Your task to perform on an android device: Open maps Image 0: 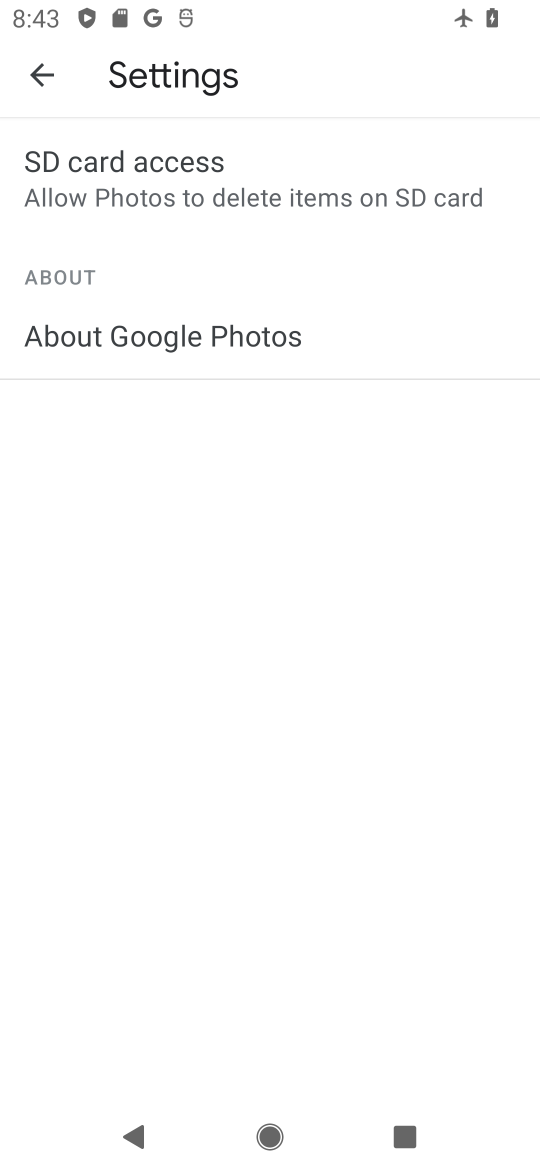
Step 0: press home button
Your task to perform on an android device: Open maps Image 1: 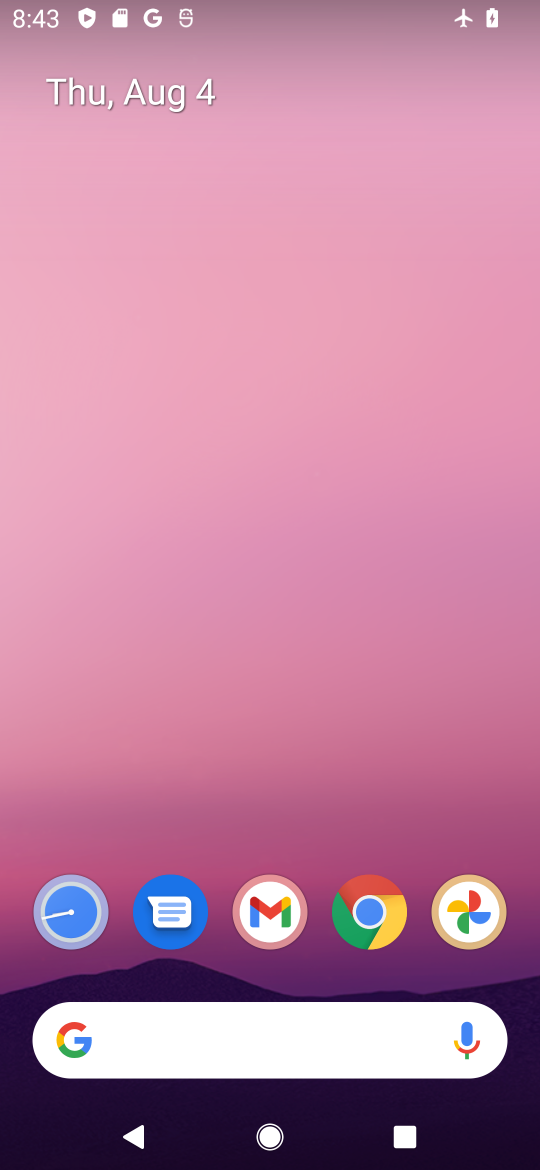
Step 1: drag from (415, 853) to (288, 86)
Your task to perform on an android device: Open maps Image 2: 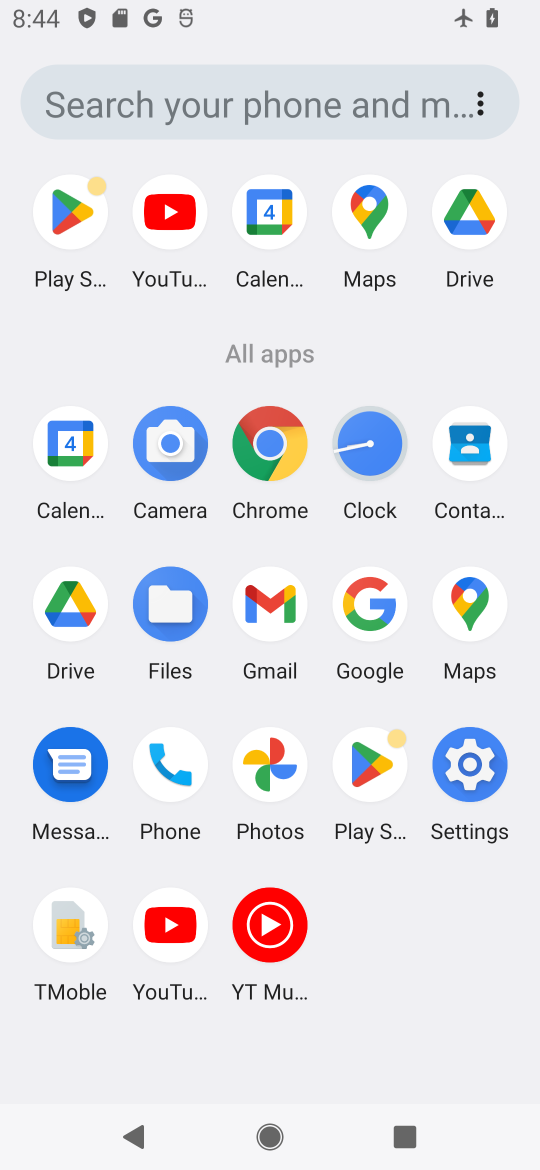
Step 2: click (369, 223)
Your task to perform on an android device: Open maps Image 3: 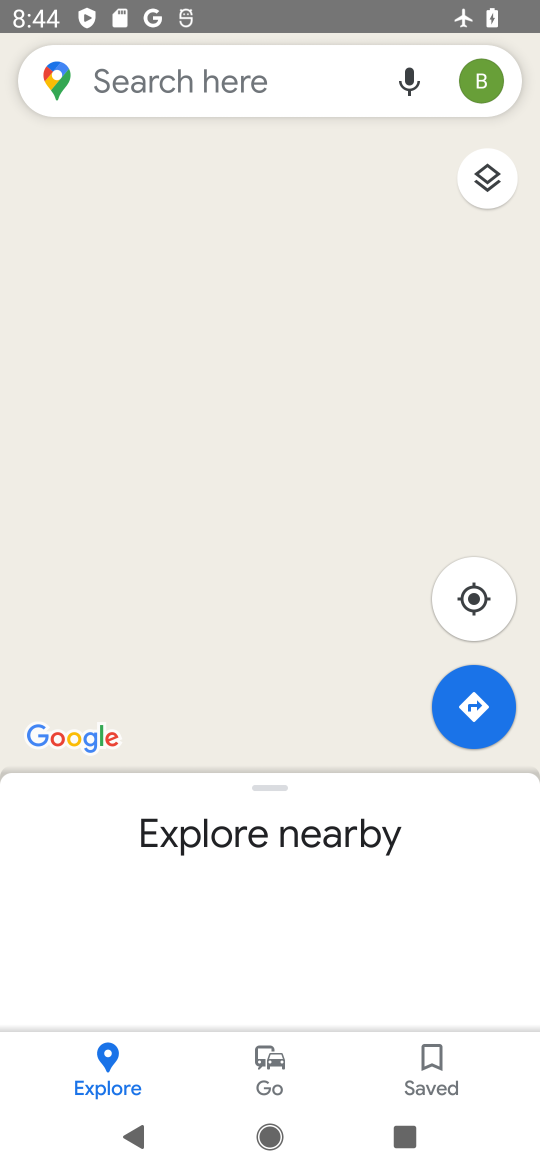
Step 3: task complete